Your task to perform on an android device: turn off picture-in-picture Image 0: 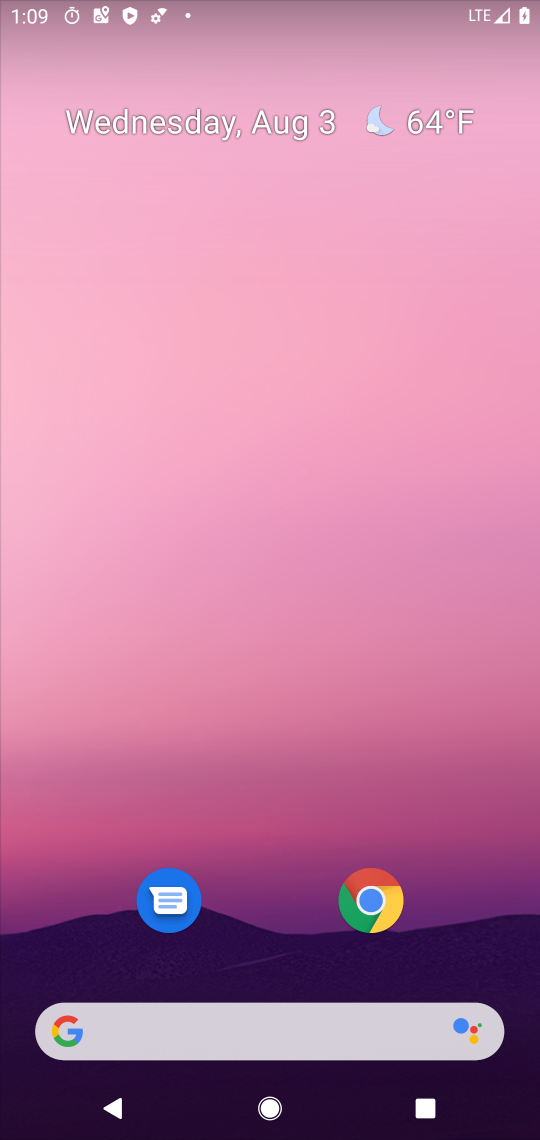
Step 0: drag from (284, 907) to (326, 172)
Your task to perform on an android device: turn off picture-in-picture Image 1: 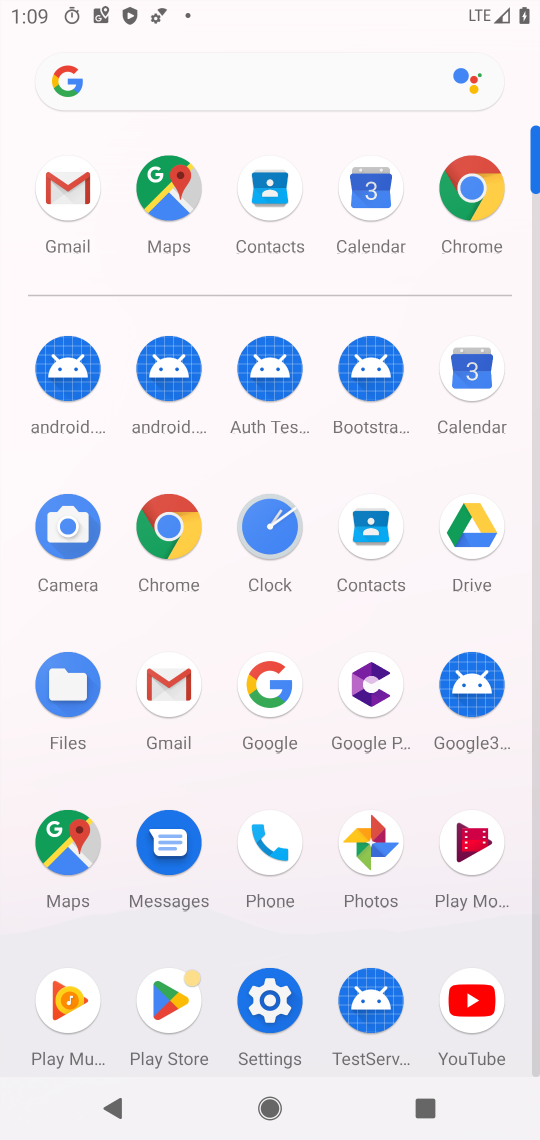
Step 1: click (488, 185)
Your task to perform on an android device: turn off picture-in-picture Image 2: 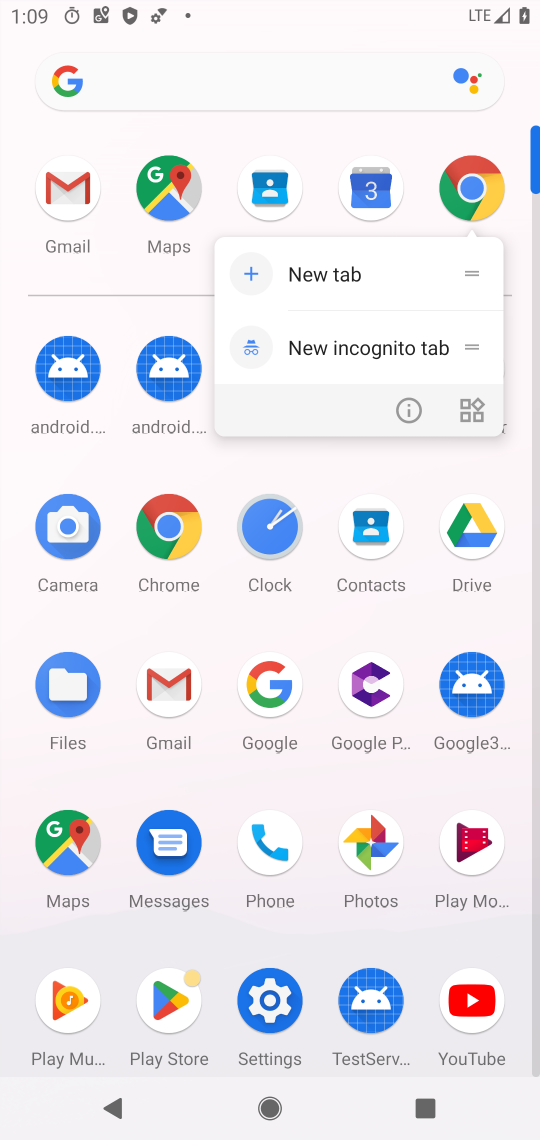
Step 2: click (417, 405)
Your task to perform on an android device: turn off picture-in-picture Image 3: 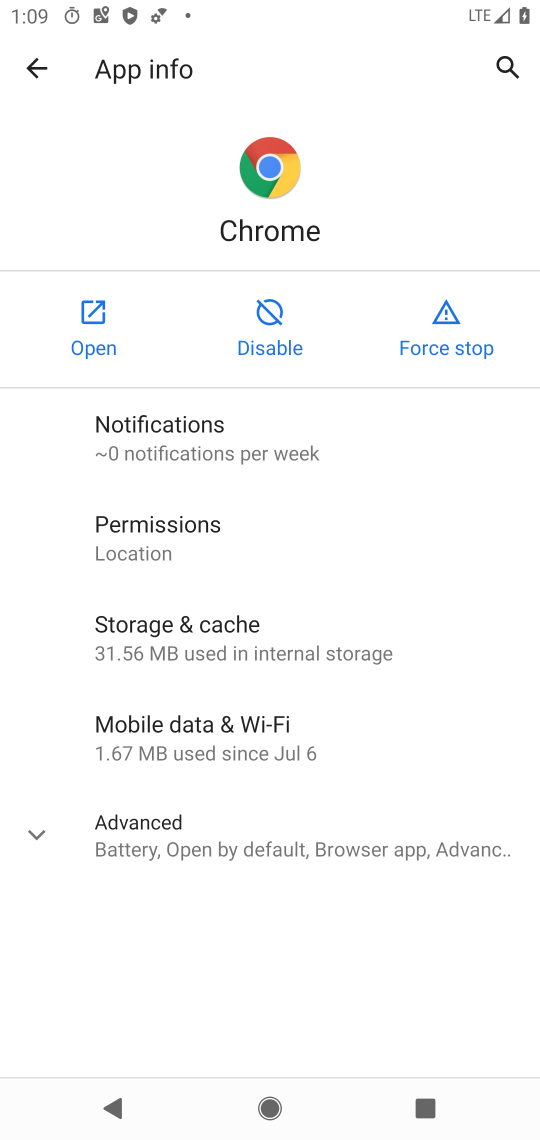
Step 3: click (351, 861)
Your task to perform on an android device: turn off picture-in-picture Image 4: 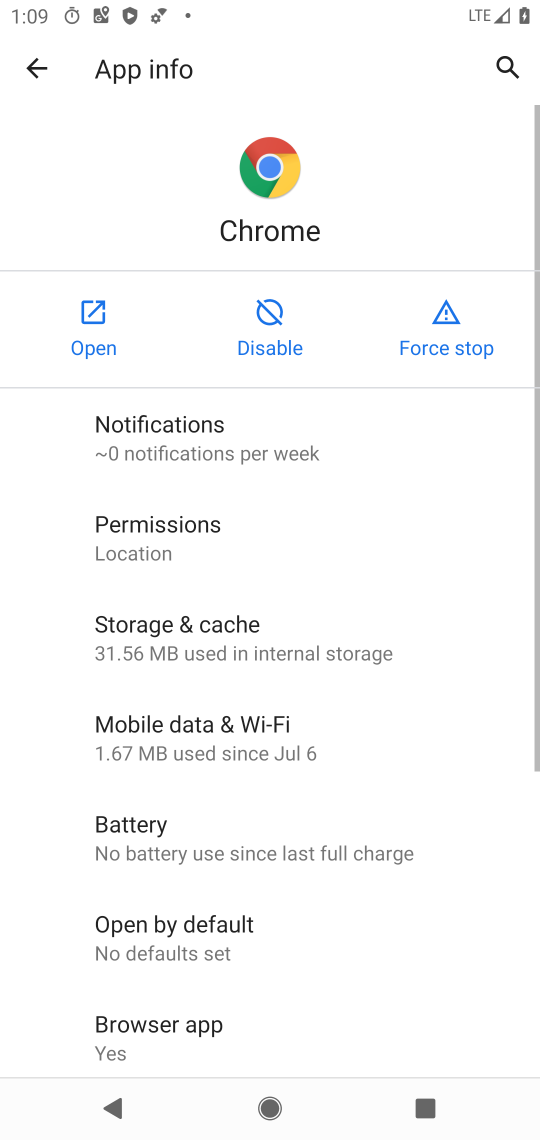
Step 4: drag from (353, 916) to (369, 332)
Your task to perform on an android device: turn off picture-in-picture Image 5: 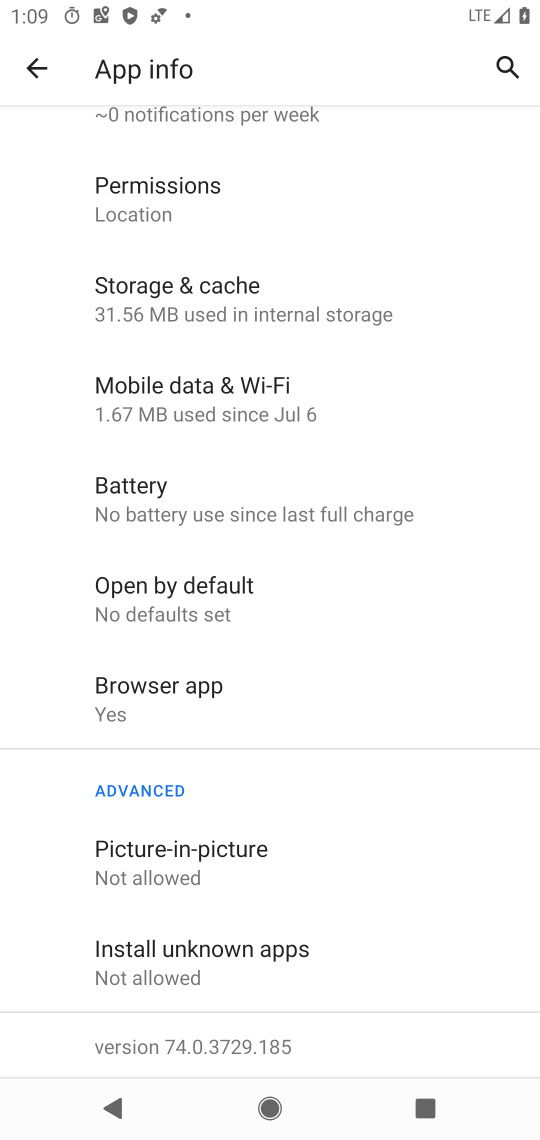
Step 5: click (248, 863)
Your task to perform on an android device: turn off picture-in-picture Image 6: 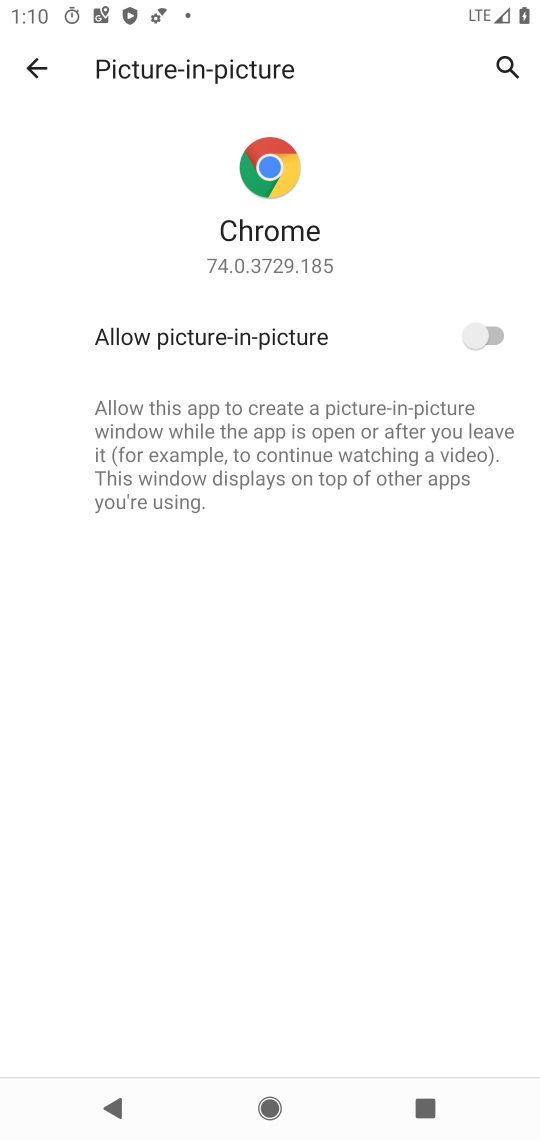
Step 6: task complete